Your task to perform on an android device: Google the capital of Panama Image 0: 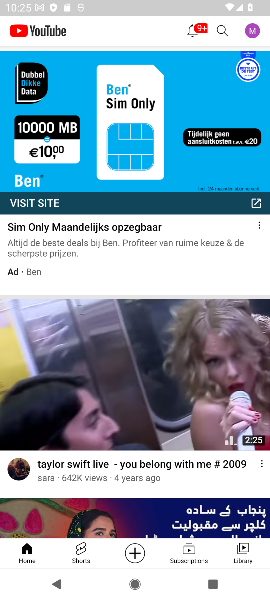
Step 0: press home button
Your task to perform on an android device: Google the capital of Panama Image 1: 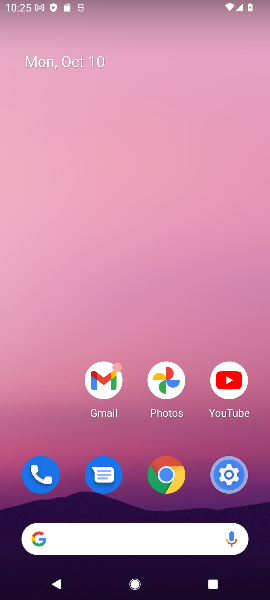
Step 1: click (173, 481)
Your task to perform on an android device: Google the capital of Panama Image 2: 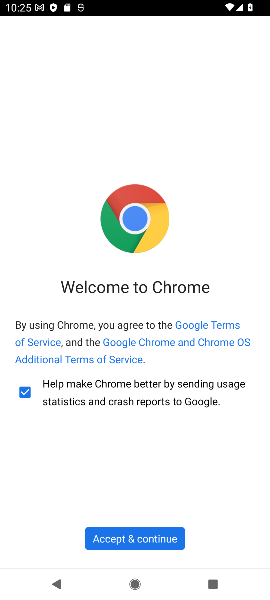
Step 2: click (106, 537)
Your task to perform on an android device: Google the capital of Panama Image 3: 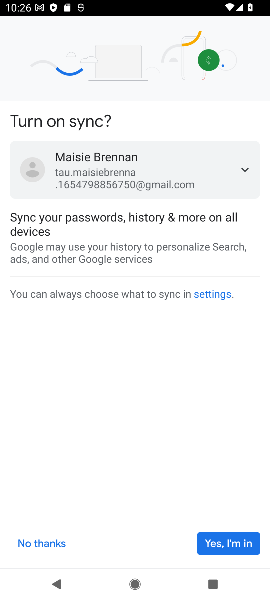
Step 3: click (211, 542)
Your task to perform on an android device: Google the capital of Panama Image 4: 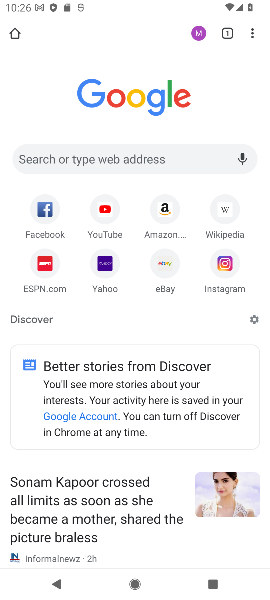
Step 4: click (132, 153)
Your task to perform on an android device: Google the capital of Panama Image 5: 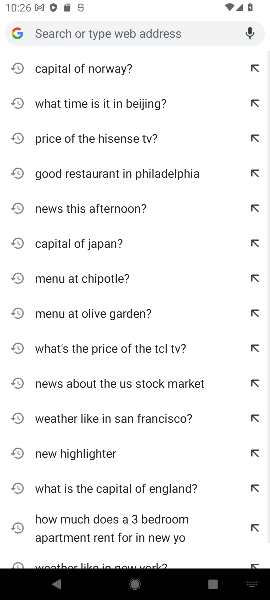
Step 5: type "capital of Panama"
Your task to perform on an android device: Google the capital of Panama Image 6: 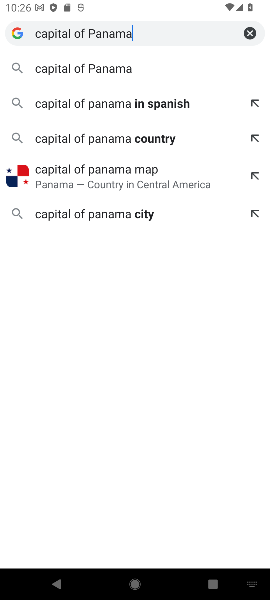
Step 6: click (75, 64)
Your task to perform on an android device: Google the capital of Panama Image 7: 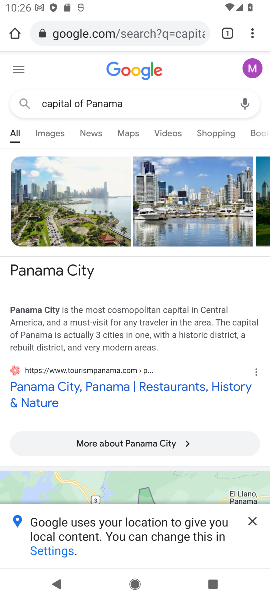
Step 7: task complete